Your task to perform on an android device: read, delete, or share a saved page in the chrome app Image 0: 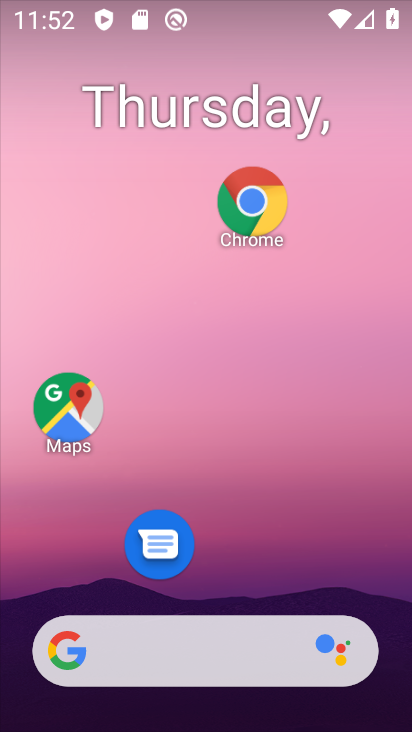
Step 0: drag from (208, 607) to (354, 40)
Your task to perform on an android device: read, delete, or share a saved page in the chrome app Image 1: 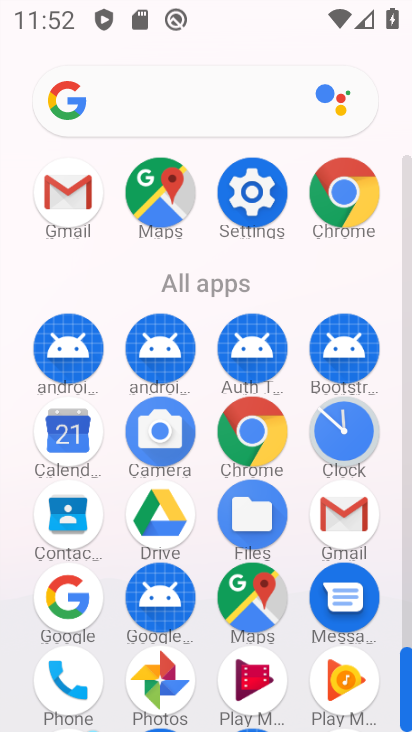
Step 1: click (266, 444)
Your task to perform on an android device: read, delete, or share a saved page in the chrome app Image 2: 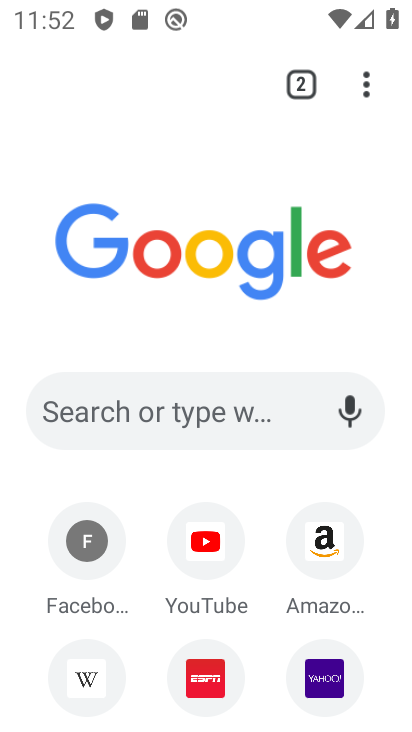
Step 2: task complete